Your task to perform on an android device: turn off notifications in google photos Image 0: 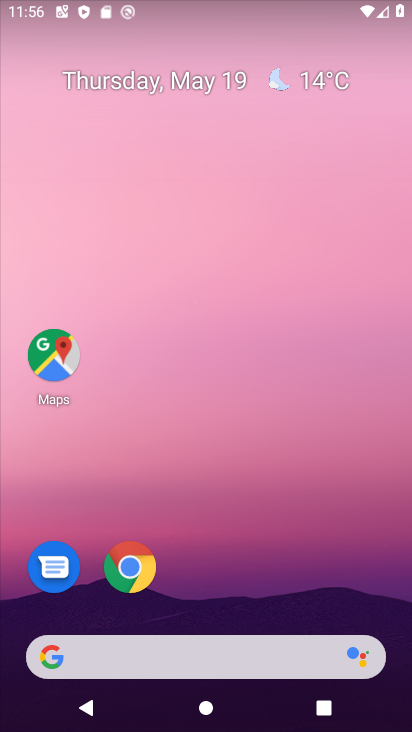
Step 0: drag from (342, 504) to (380, 84)
Your task to perform on an android device: turn off notifications in google photos Image 1: 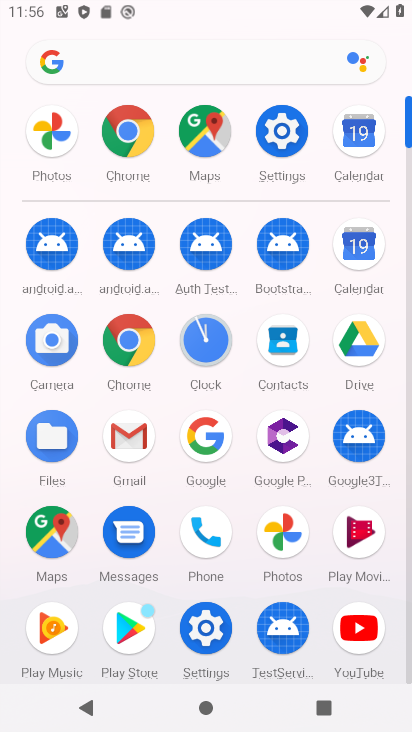
Step 1: click (69, 140)
Your task to perform on an android device: turn off notifications in google photos Image 2: 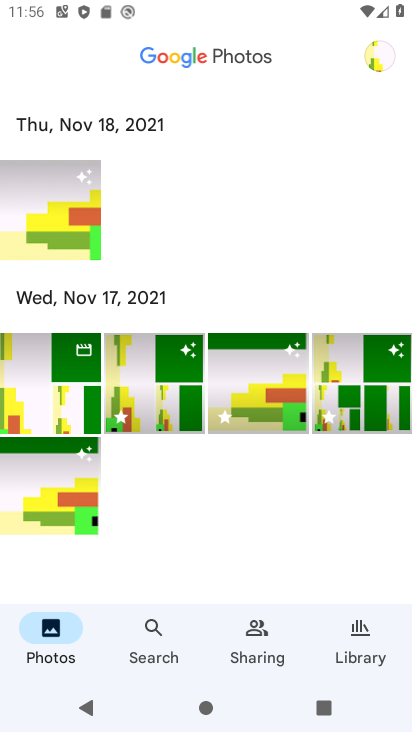
Step 2: click (389, 59)
Your task to perform on an android device: turn off notifications in google photos Image 3: 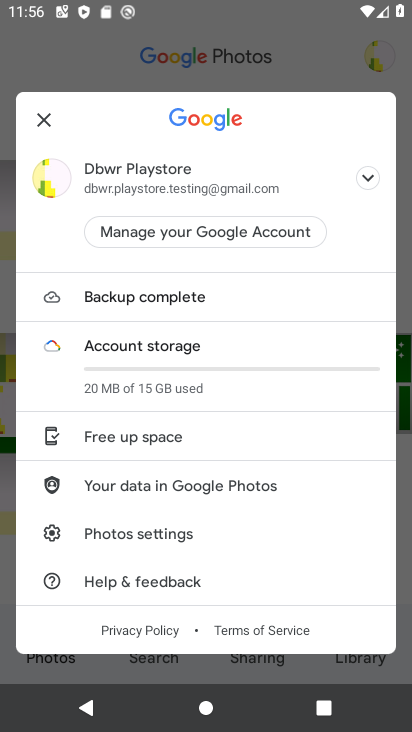
Step 3: drag from (128, 541) to (140, 244)
Your task to perform on an android device: turn off notifications in google photos Image 4: 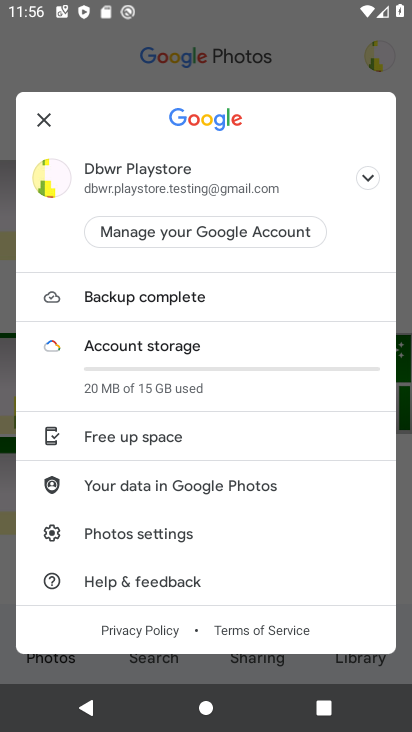
Step 4: click (149, 543)
Your task to perform on an android device: turn off notifications in google photos Image 5: 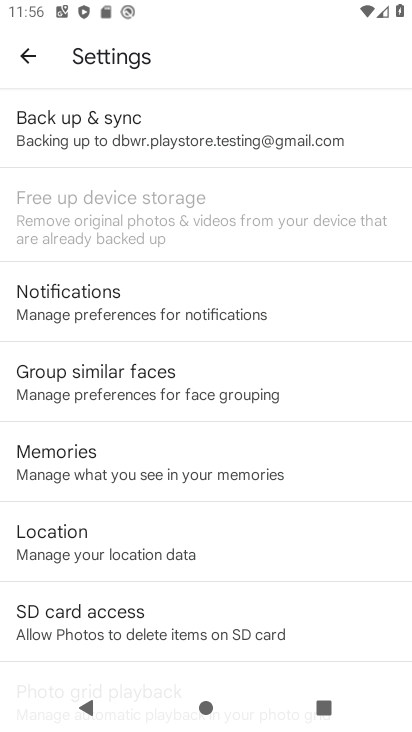
Step 5: drag from (169, 640) to (238, 209)
Your task to perform on an android device: turn off notifications in google photos Image 6: 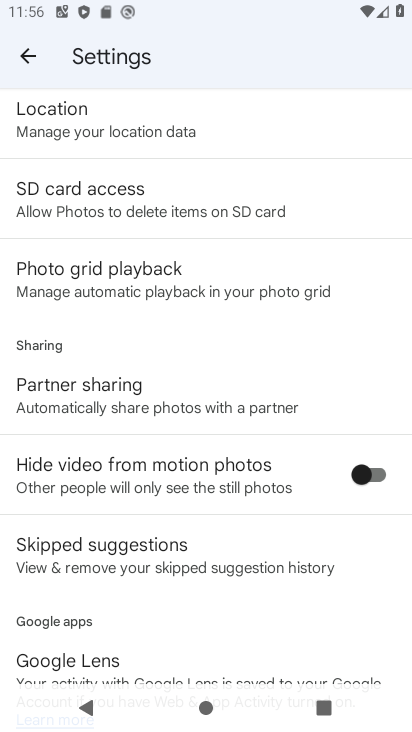
Step 6: drag from (176, 180) to (186, 681)
Your task to perform on an android device: turn off notifications in google photos Image 7: 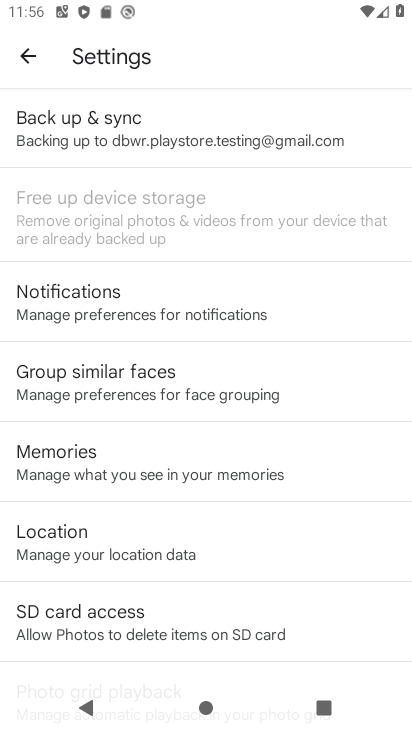
Step 7: click (137, 313)
Your task to perform on an android device: turn off notifications in google photos Image 8: 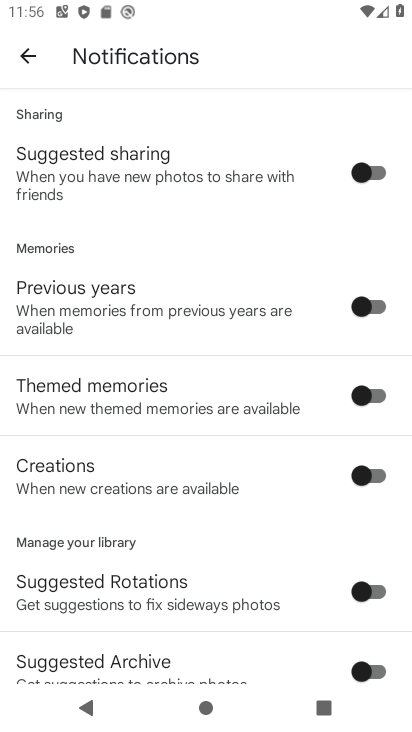
Step 8: drag from (172, 629) to (197, 192)
Your task to perform on an android device: turn off notifications in google photos Image 9: 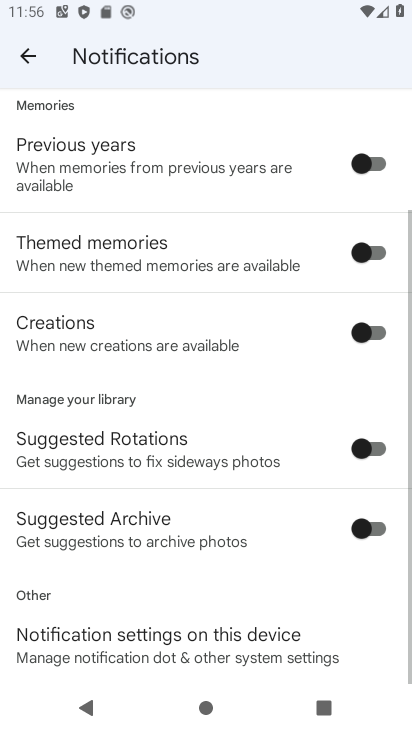
Step 9: click (208, 633)
Your task to perform on an android device: turn off notifications in google photos Image 10: 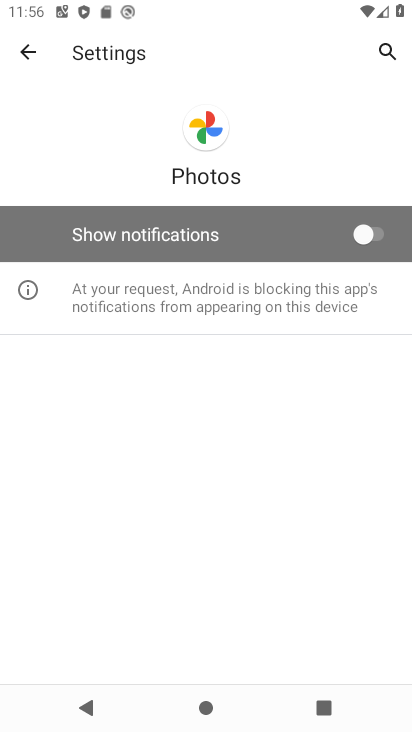
Step 10: task complete